Your task to perform on an android device: Look up the best rated gaming chair on Target. Image 0: 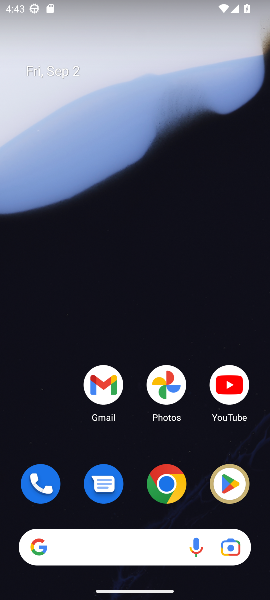
Step 0: click (224, 135)
Your task to perform on an android device: Look up the best rated gaming chair on Target. Image 1: 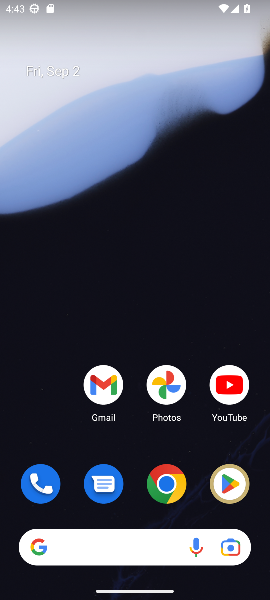
Step 1: click (164, 488)
Your task to perform on an android device: Look up the best rated gaming chair on Target. Image 2: 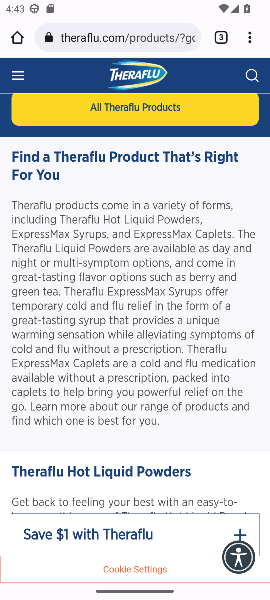
Step 2: click (165, 31)
Your task to perform on an android device: Look up the best rated gaming chair on Target. Image 3: 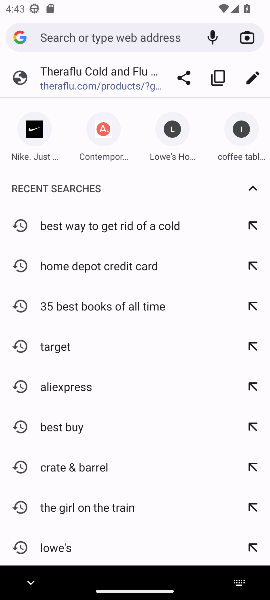
Step 3: type "Target."
Your task to perform on an android device: Look up the best rated gaming chair on Target. Image 4: 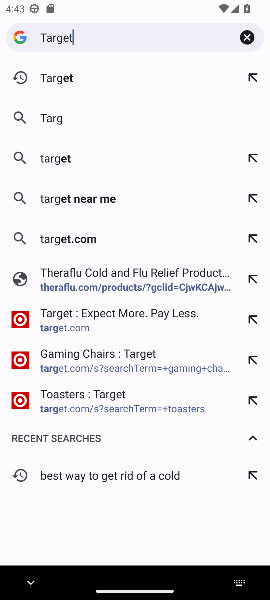
Step 4: press enter
Your task to perform on an android device: Look up the best rated gaming chair on Target. Image 5: 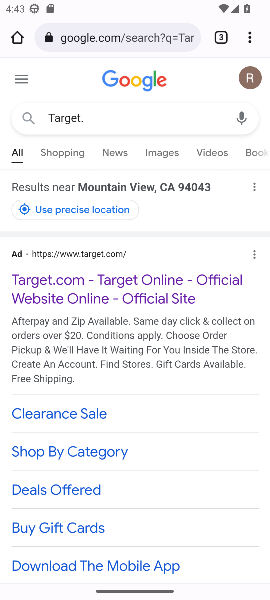
Step 5: click (95, 277)
Your task to perform on an android device: Look up the best rated gaming chair on Target. Image 6: 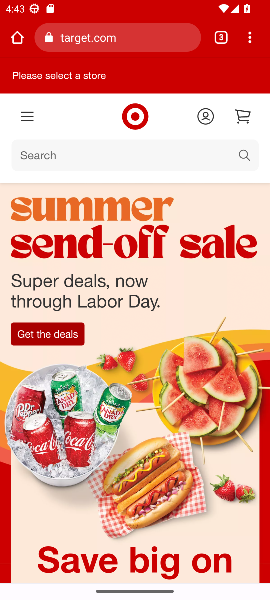
Step 6: click (244, 155)
Your task to perform on an android device: Look up the best rated gaming chair on Target. Image 7: 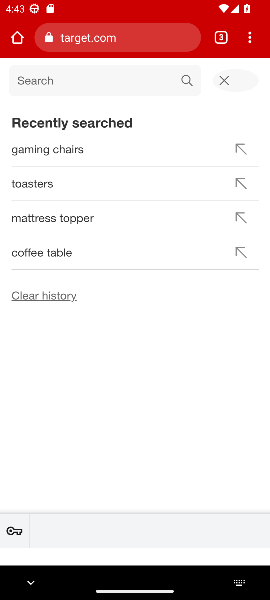
Step 7: click (78, 148)
Your task to perform on an android device: Look up the best rated gaming chair on Target. Image 8: 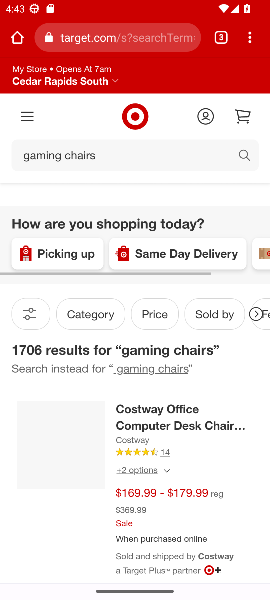
Step 8: task complete